Your task to perform on an android device: refresh tabs in the chrome app Image 0: 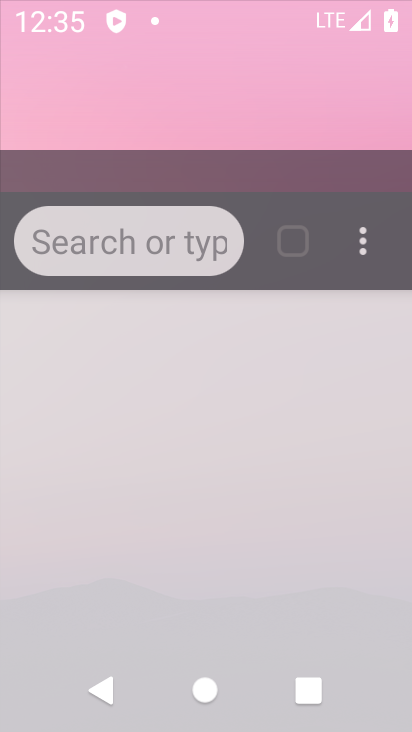
Step 0: drag from (374, 411) to (363, 104)
Your task to perform on an android device: refresh tabs in the chrome app Image 1: 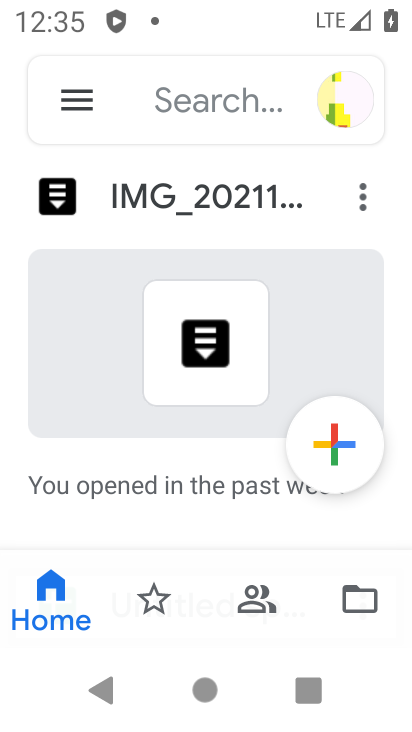
Step 1: press home button
Your task to perform on an android device: refresh tabs in the chrome app Image 2: 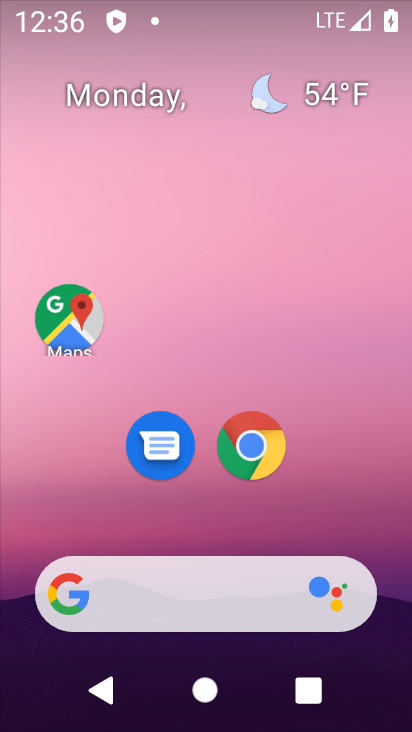
Step 2: drag from (388, 397) to (384, 119)
Your task to perform on an android device: refresh tabs in the chrome app Image 3: 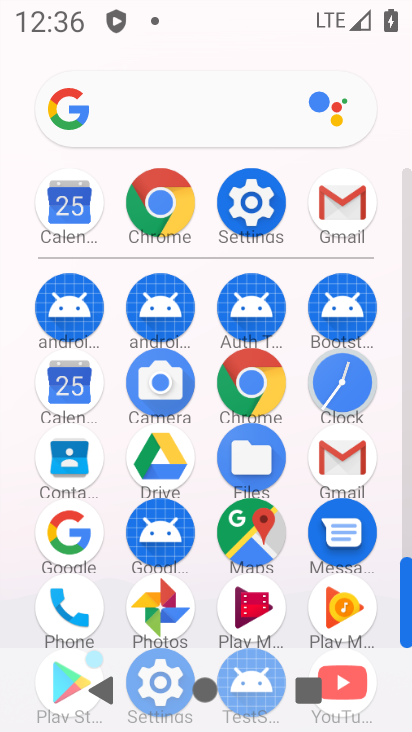
Step 3: drag from (296, 584) to (299, 256)
Your task to perform on an android device: refresh tabs in the chrome app Image 4: 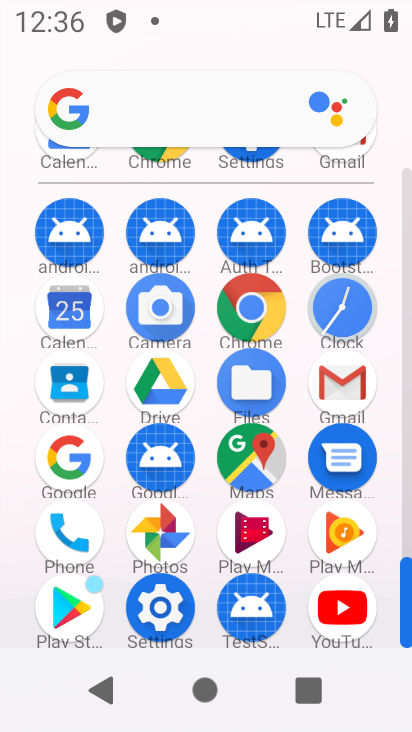
Step 4: click (257, 317)
Your task to perform on an android device: refresh tabs in the chrome app Image 5: 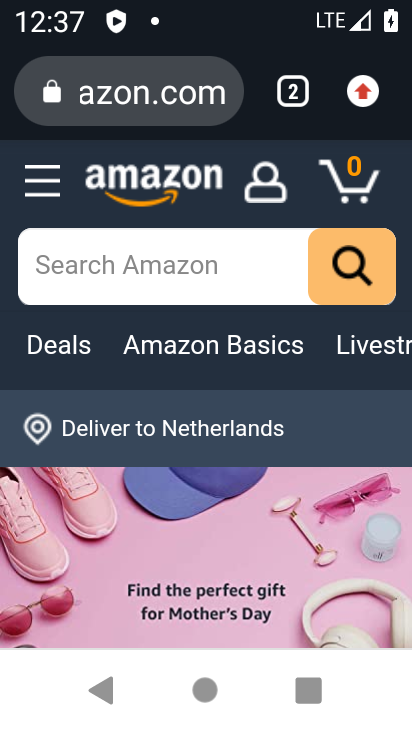
Step 5: task complete